Your task to perform on an android device: Open the calendar app, open the side menu, and click the "Day" option Image 0: 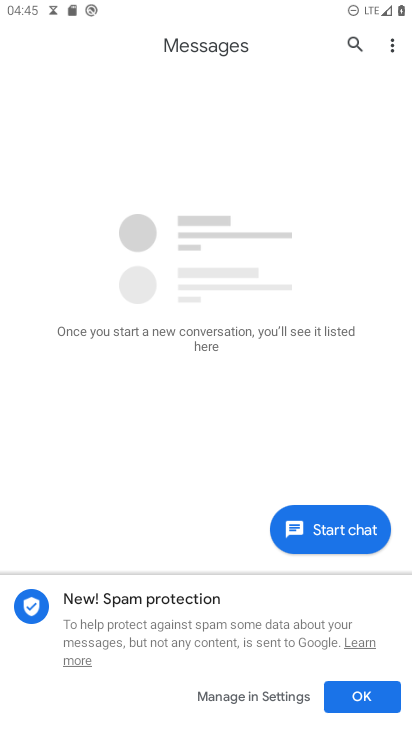
Step 0: press home button
Your task to perform on an android device: Open the calendar app, open the side menu, and click the "Day" option Image 1: 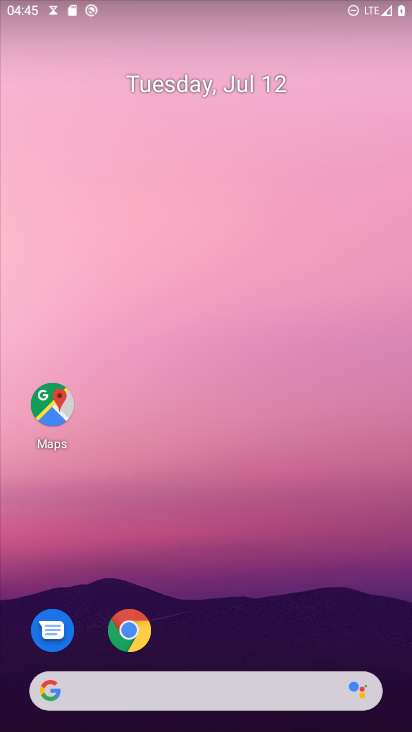
Step 1: drag from (200, 695) to (273, 1)
Your task to perform on an android device: Open the calendar app, open the side menu, and click the "Day" option Image 2: 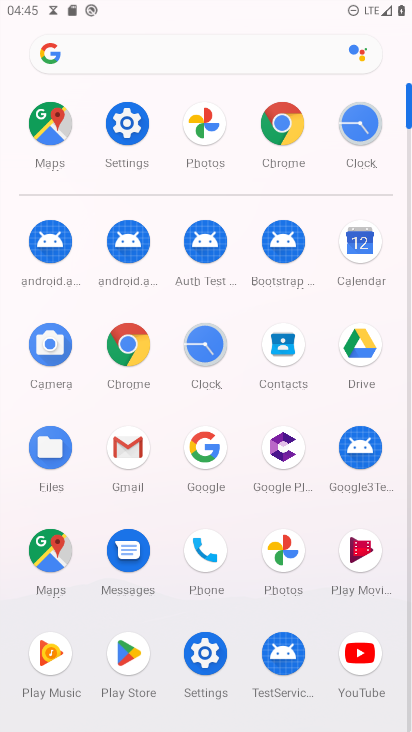
Step 2: click (359, 252)
Your task to perform on an android device: Open the calendar app, open the side menu, and click the "Day" option Image 3: 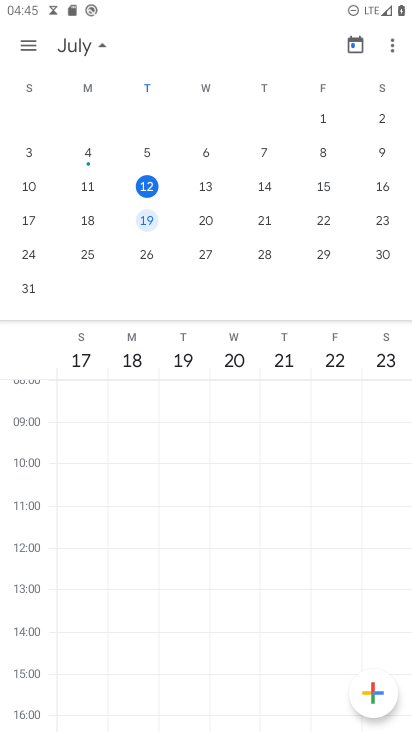
Step 3: click (35, 42)
Your task to perform on an android device: Open the calendar app, open the side menu, and click the "Day" option Image 4: 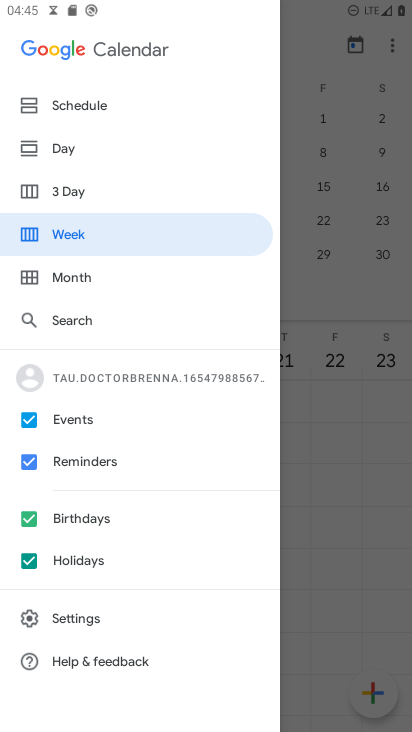
Step 4: click (58, 149)
Your task to perform on an android device: Open the calendar app, open the side menu, and click the "Day" option Image 5: 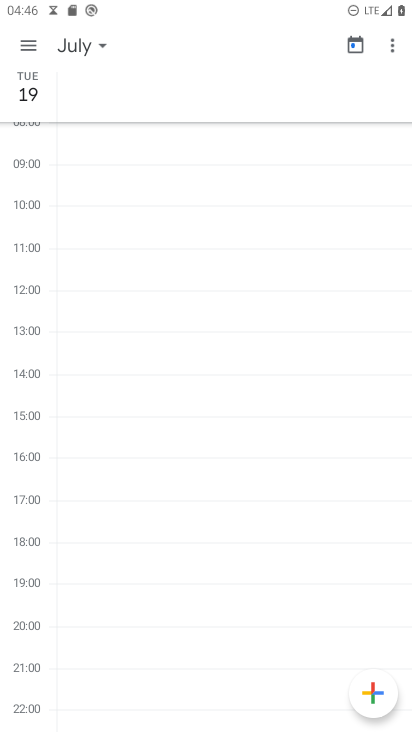
Step 5: task complete